Your task to perform on an android device: toggle wifi Image 0: 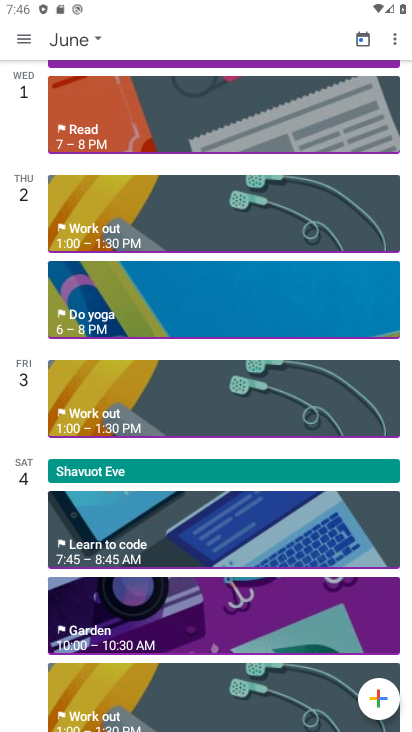
Step 0: press home button
Your task to perform on an android device: toggle wifi Image 1: 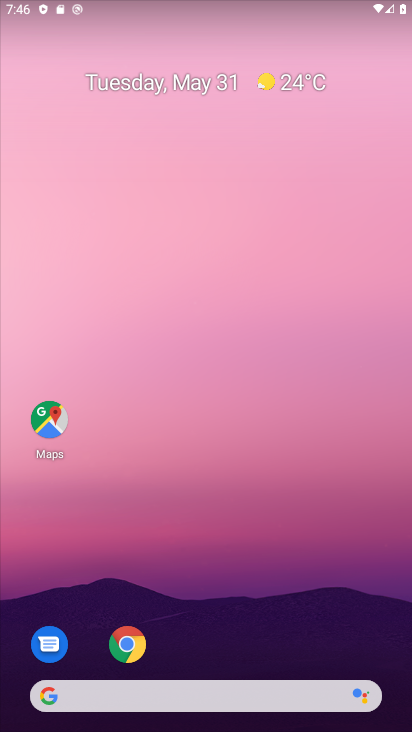
Step 1: drag from (317, 544) to (345, 258)
Your task to perform on an android device: toggle wifi Image 2: 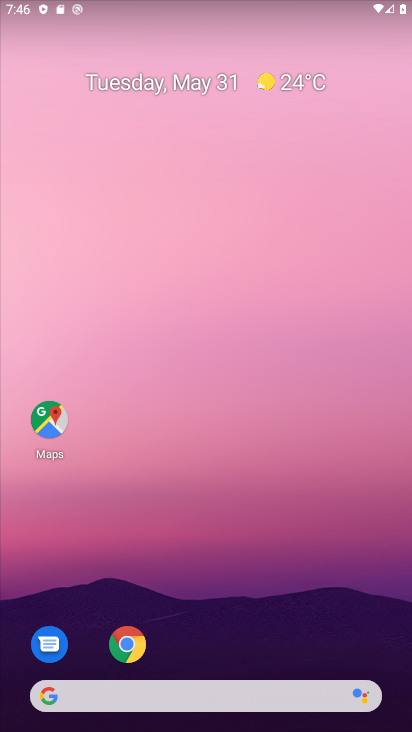
Step 2: drag from (294, 589) to (295, 221)
Your task to perform on an android device: toggle wifi Image 3: 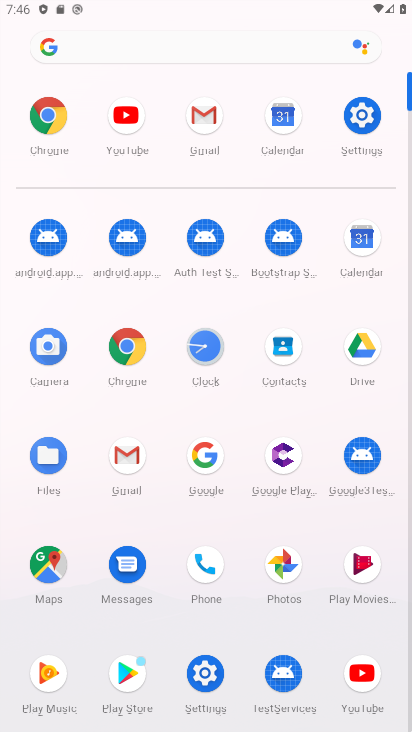
Step 3: click (362, 133)
Your task to perform on an android device: toggle wifi Image 4: 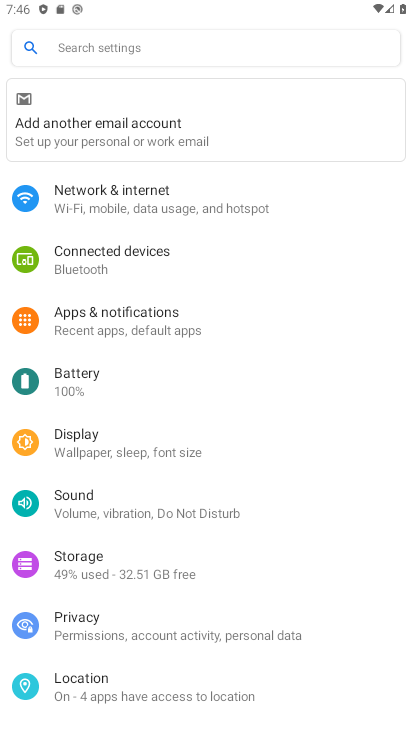
Step 4: click (208, 222)
Your task to perform on an android device: toggle wifi Image 5: 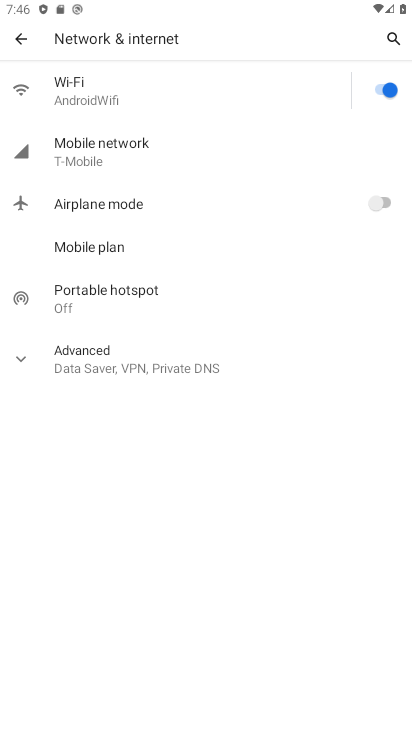
Step 5: click (379, 86)
Your task to perform on an android device: toggle wifi Image 6: 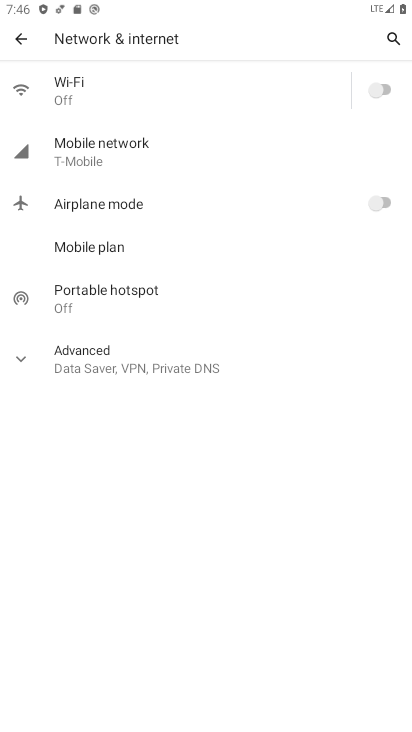
Step 6: task complete